Your task to perform on an android device: allow cookies in the chrome app Image 0: 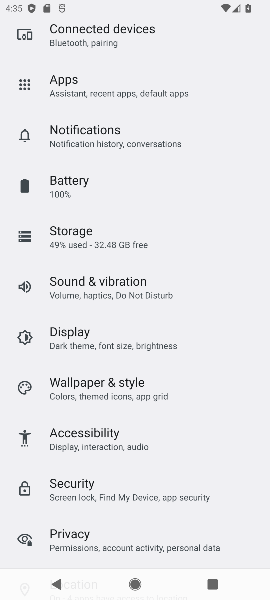
Step 0: press home button
Your task to perform on an android device: allow cookies in the chrome app Image 1: 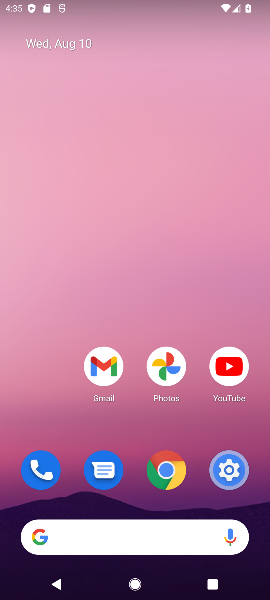
Step 1: drag from (15, 413) to (145, 4)
Your task to perform on an android device: allow cookies in the chrome app Image 2: 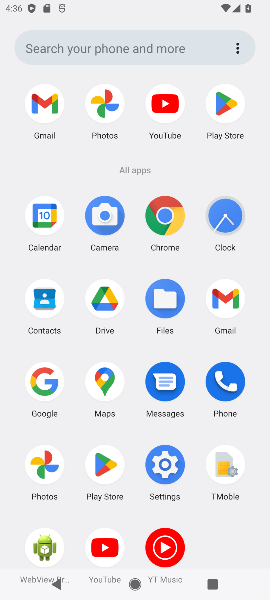
Step 2: click (175, 235)
Your task to perform on an android device: allow cookies in the chrome app Image 3: 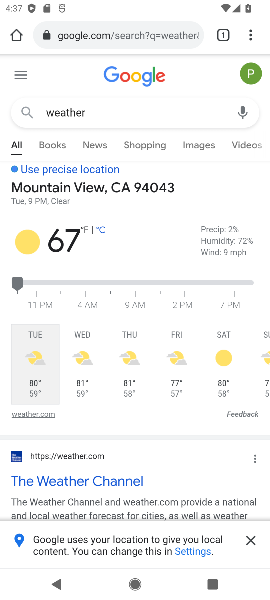
Step 3: drag from (246, 30) to (130, 423)
Your task to perform on an android device: allow cookies in the chrome app Image 4: 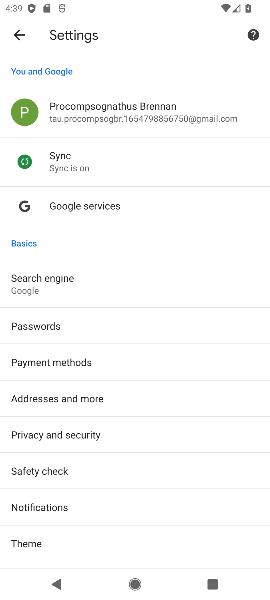
Step 4: drag from (102, 444) to (129, 1)
Your task to perform on an android device: allow cookies in the chrome app Image 5: 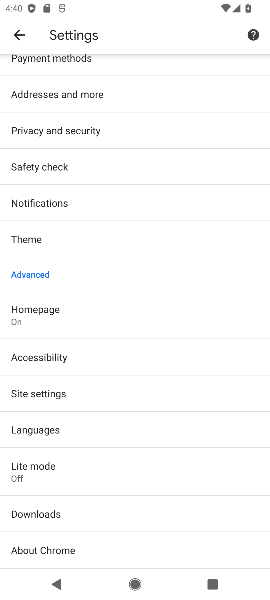
Step 5: drag from (49, 199) to (51, 464)
Your task to perform on an android device: allow cookies in the chrome app Image 6: 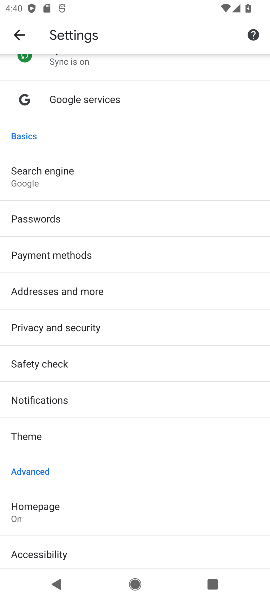
Step 6: drag from (81, 484) to (139, 121)
Your task to perform on an android device: allow cookies in the chrome app Image 7: 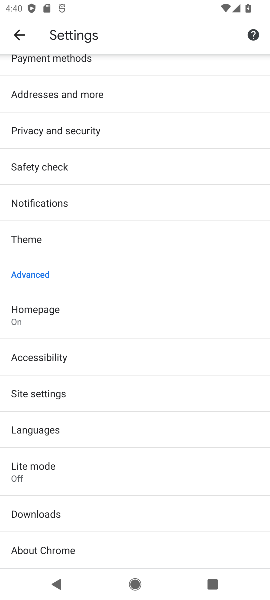
Step 7: click (86, 396)
Your task to perform on an android device: allow cookies in the chrome app Image 8: 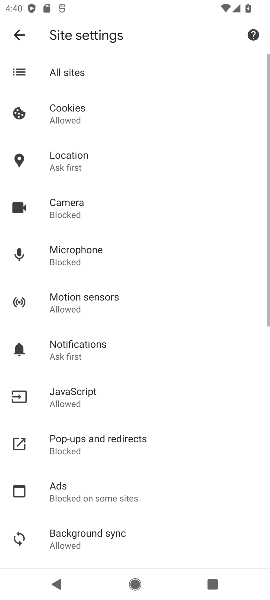
Step 8: click (81, 121)
Your task to perform on an android device: allow cookies in the chrome app Image 9: 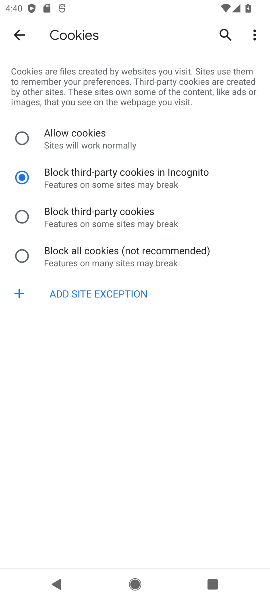
Step 9: task complete